Your task to perform on an android device: change text size in settings app Image 0: 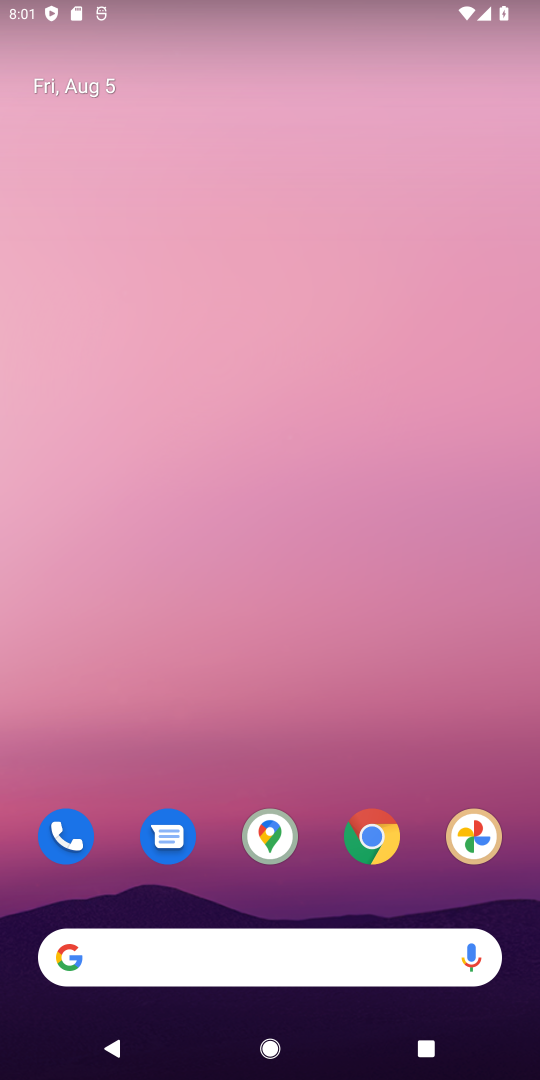
Step 0: drag from (290, 731) to (240, 92)
Your task to perform on an android device: change text size in settings app Image 1: 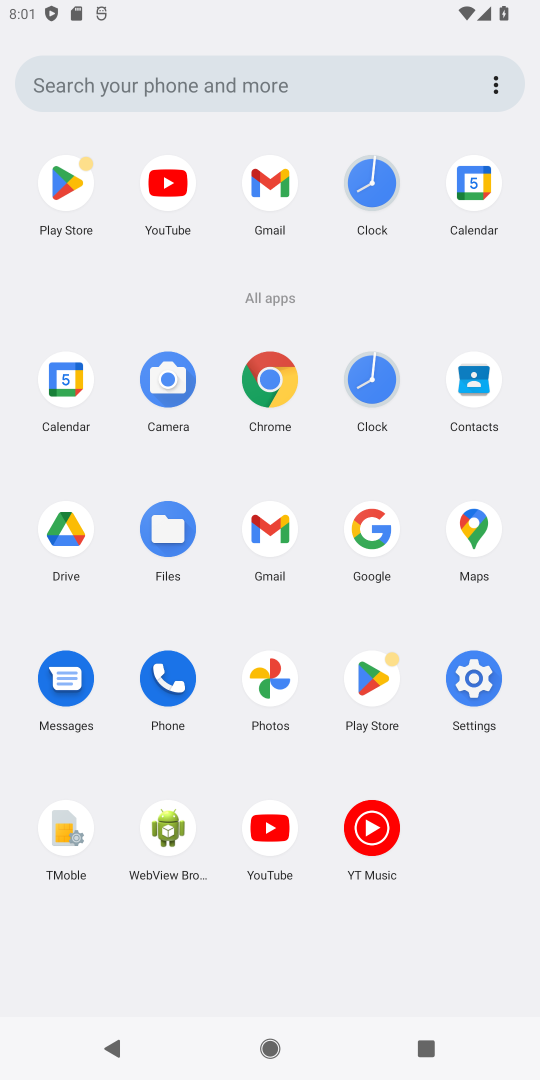
Step 1: click (477, 677)
Your task to perform on an android device: change text size in settings app Image 2: 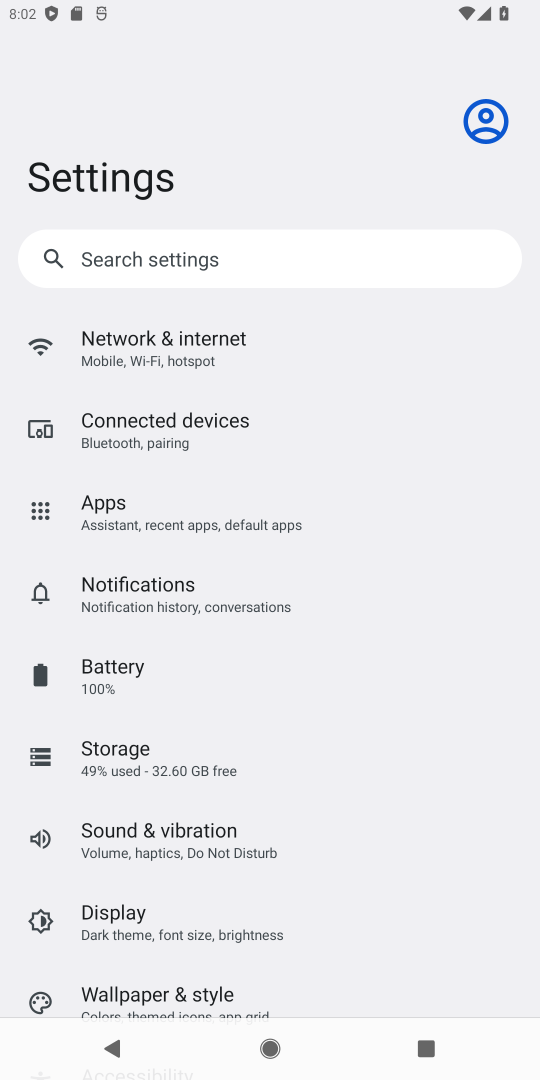
Step 2: click (141, 917)
Your task to perform on an android device: change text size in settings app Image 3: 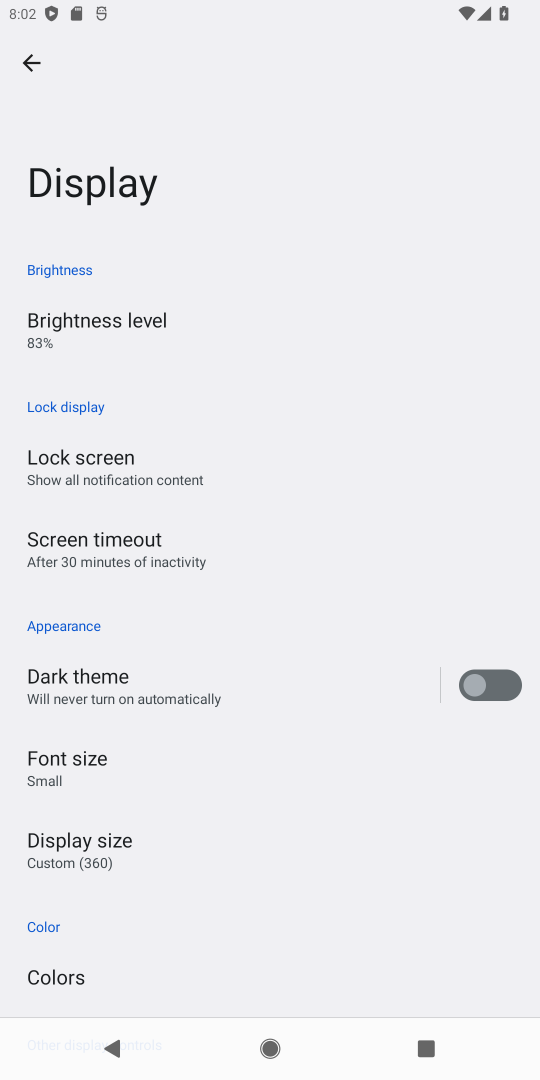
Step 3: click (68, 758)
Your task to perform on an android device: change text size in settings app Image 4: 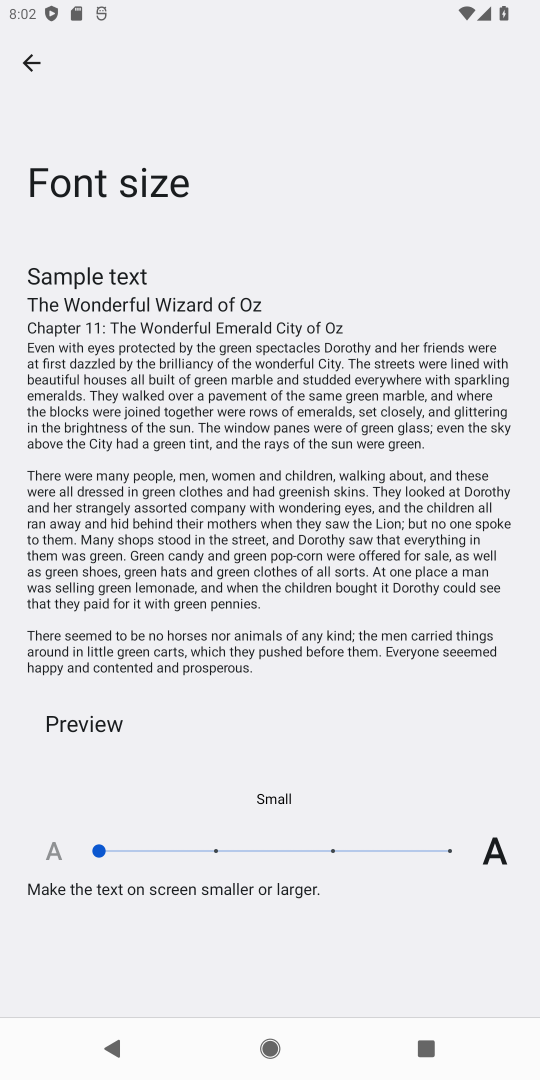
Step 4: click (157, 847)
Your task to perform on an android device: change text size in settings app Image 5: 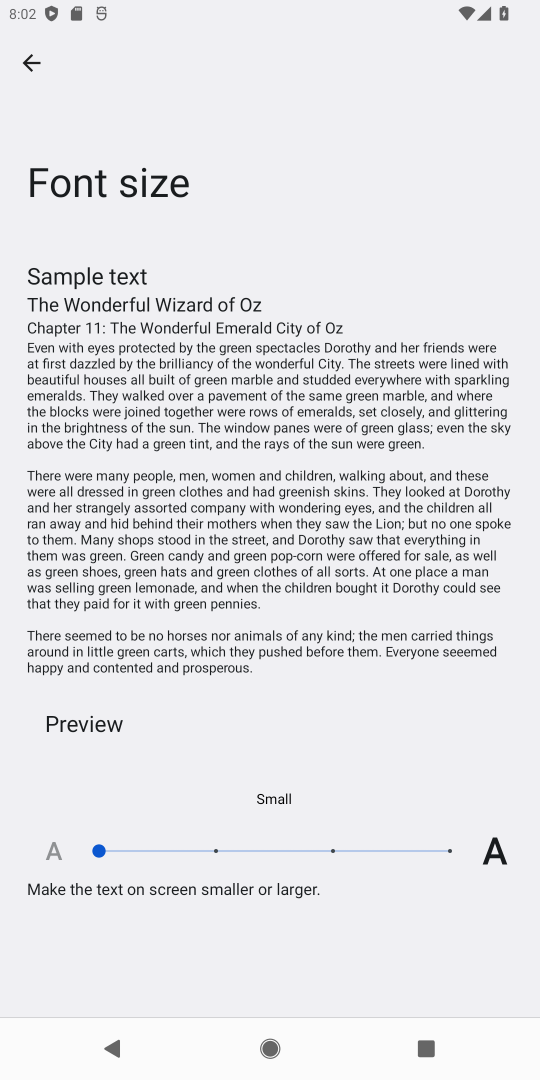
Step 5: click (213, 845)
Your task to perform on an android device: change text size in settings app Image 6: 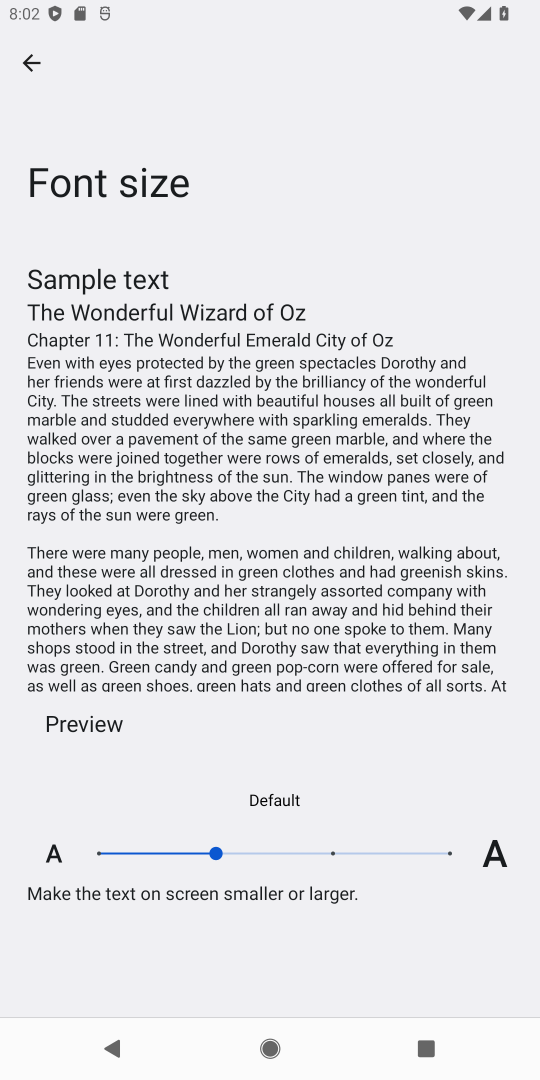
Step 6: task complete